Your task to perform on an android device: Go to notification settings Image 0: 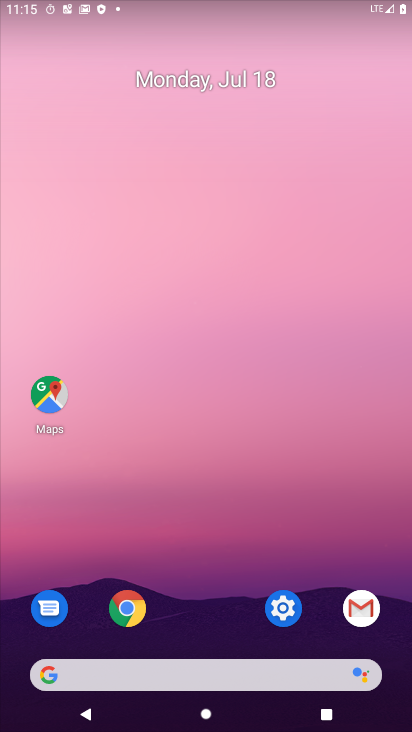
Step 0: click (283, 611)
Your task to perform on an android device: Go to notification settings Image 1: 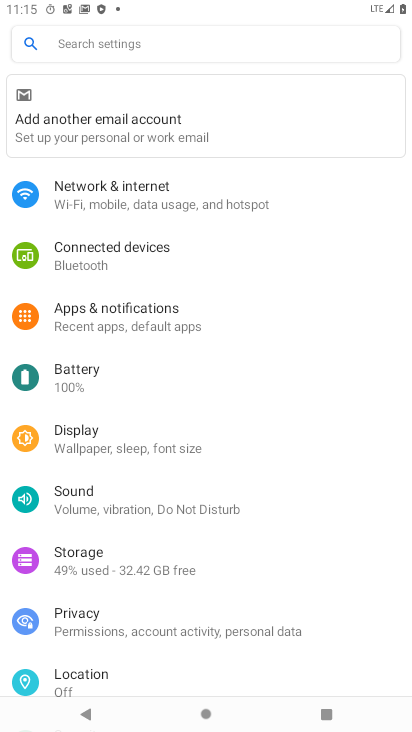
Step 1: click (128, 48)
Your task to perform on an android device: Go to notification settings Image 2: 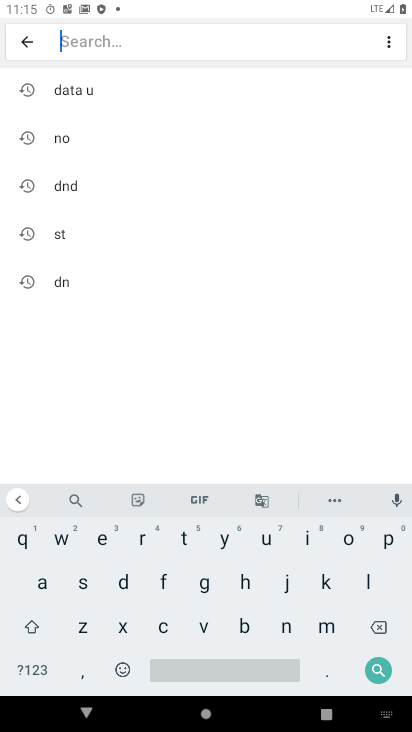
Step 2: click (58, 134)
Your task to perform on an android device: Go to notification settings Image 3: 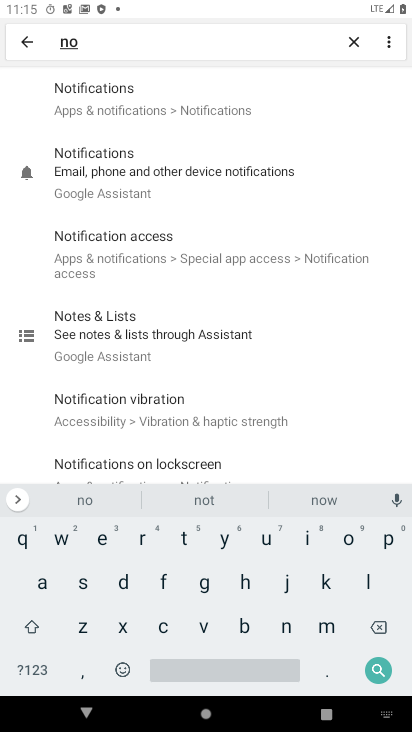
Step 3: click (92, 103)
Your task to perform on an android device: Go to notification settings Image 4: 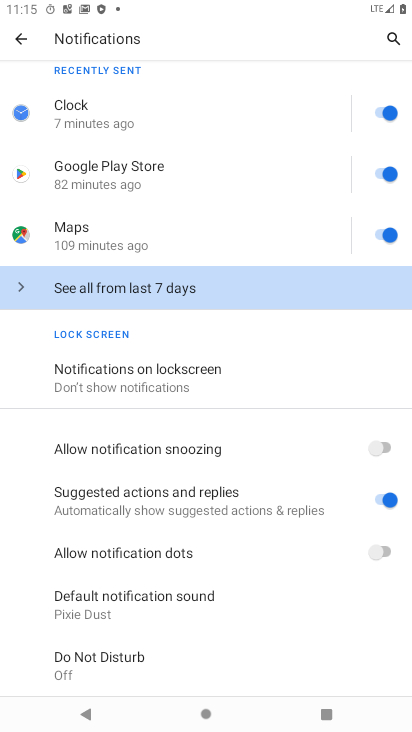
Step 4: click (78, 380)
Your task to perform on an android device: Go to notification settings Image 5: 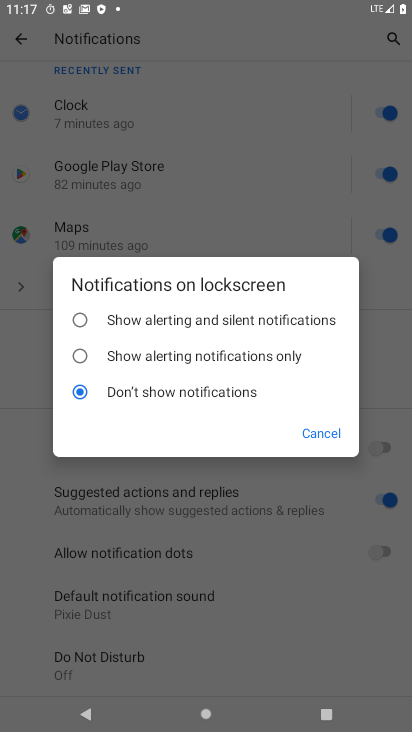
Step 5: task complete